Your task to perform on an android device: Open Google Maps Image 0: 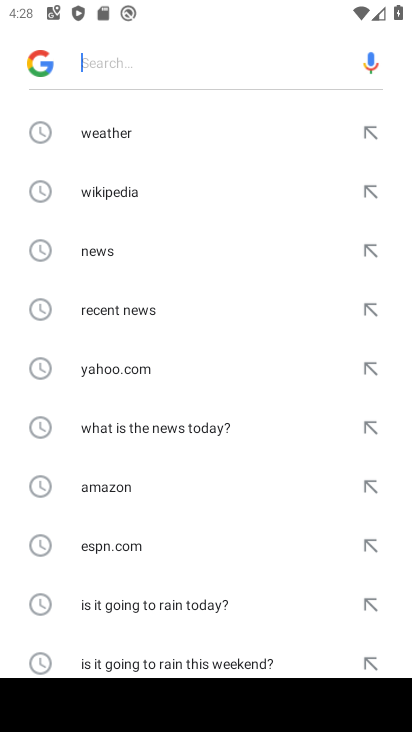
Step 0: press home button
Your task to perform on an android device: Open Google Maps Image 1: 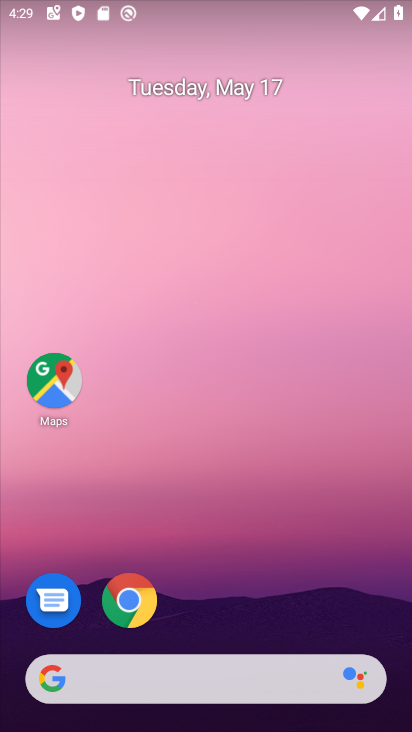
Step 1: drag from (244, 610) to (236, 562)
Your task to perform on an android device: Open Google Maps Image 2: 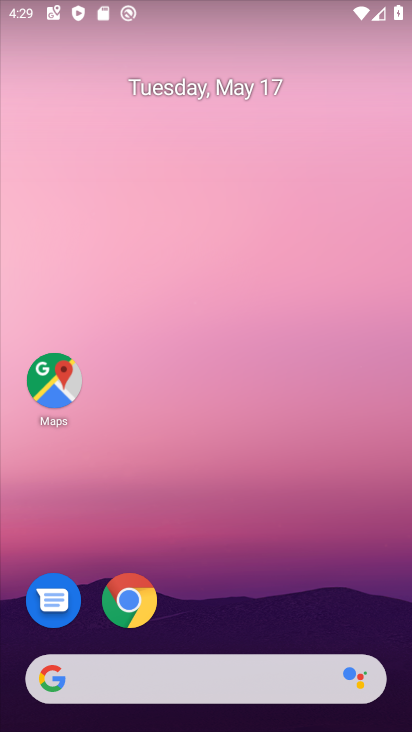
Step 2: click (75, 376)
Your task to perform on an android device: Open Google Maps Image 3: 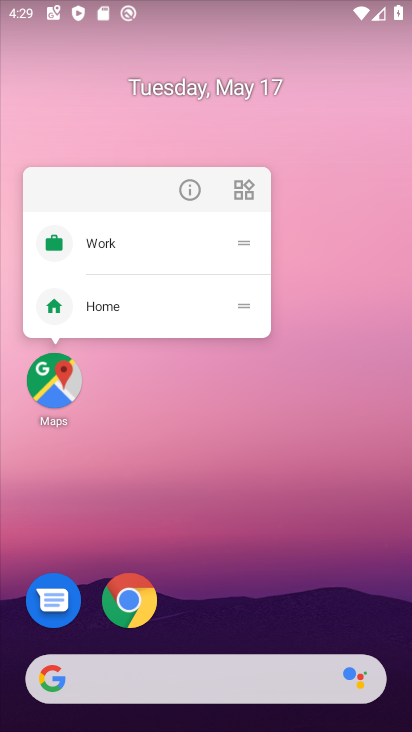
Step 3: click (67, 376)
Your task to perform on an android device: Open Google Maps Image 4: 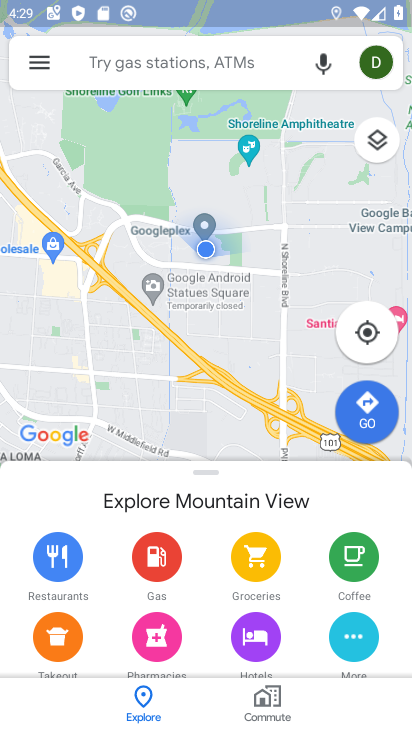
Step 4: task complete